Your task to perform on an android device: Search for pizza restaurants on Maps Image 0: 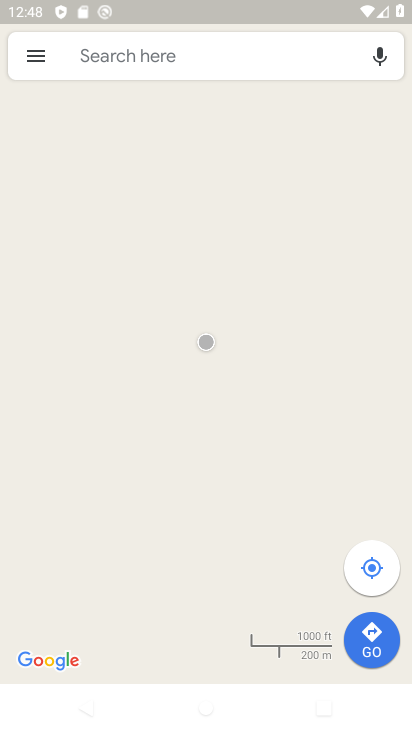
Step 0: press home button
Your task to perform on an android device: Search for pizza restaurants on Maps Image 1: 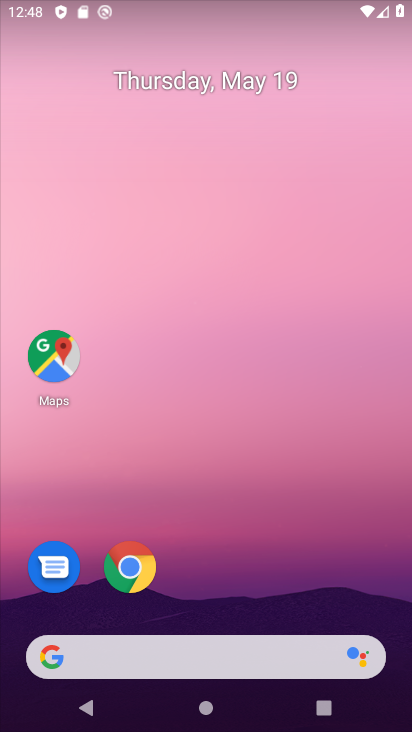
Step 1: click (59, 367)
Your task to perform on an android device: Search for pizza restaurants on Maps Image 2: 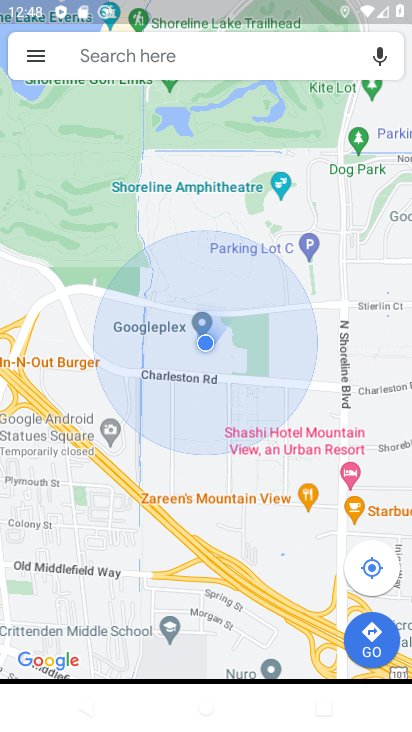
Step 2: click (163, 57)
Your task to perform on an android device: Search for pizza restaurants on Maps Image 3: 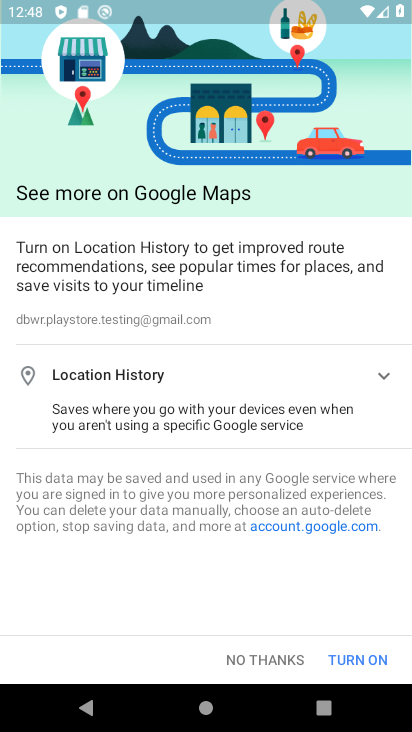
Step 3: click (277, 656)
Your task to perform on an android device: Search for pizza restaurants on Maps Image 4: 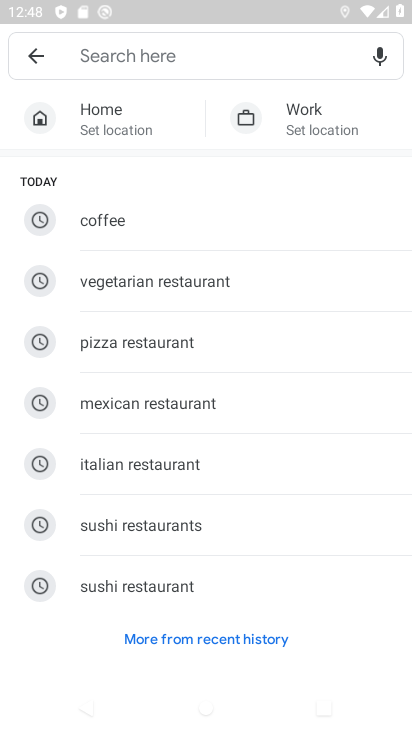
Step 4: click (183, 344)
Your task to perform on an android device: Search for pizza restaurants on Maps Image 5: 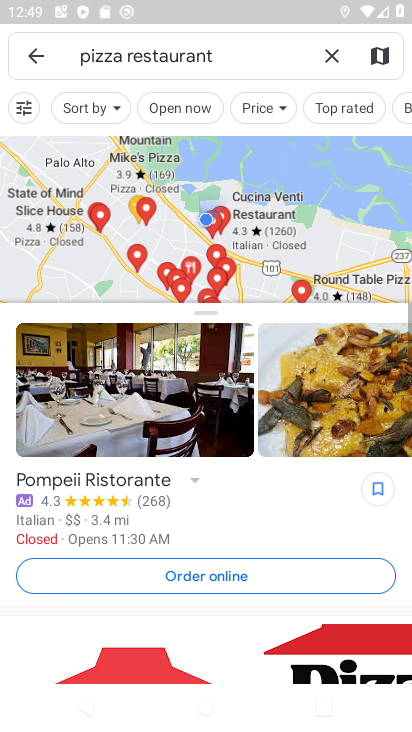
Step 5: task complete